Your task to perform on an android device: Open Chrome and go to settings Image 0: 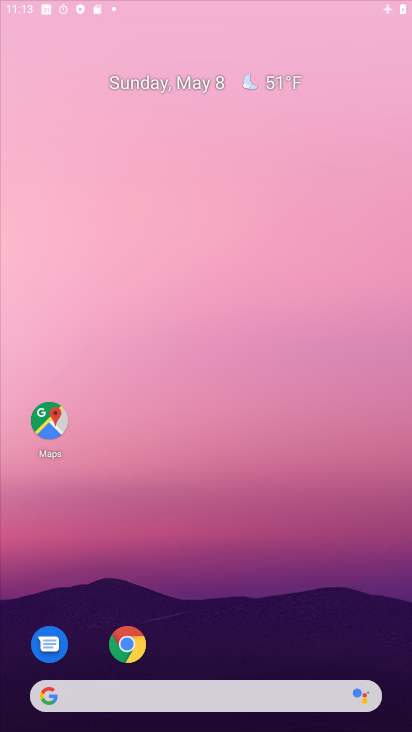
Step 0: click (215, 235)
Your task to perform on an android device: Open Chrome and go to settings Image 1: 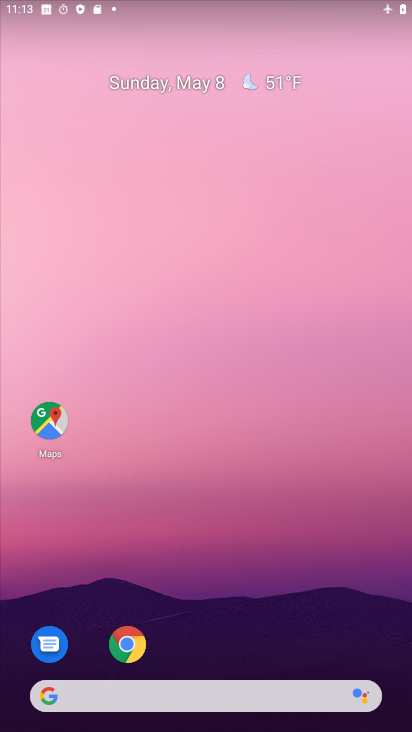
Step 1: drag from (174, 681) to (198, 219)
Your task to perform on an android device: Open Chrome and go to settings Image 2: 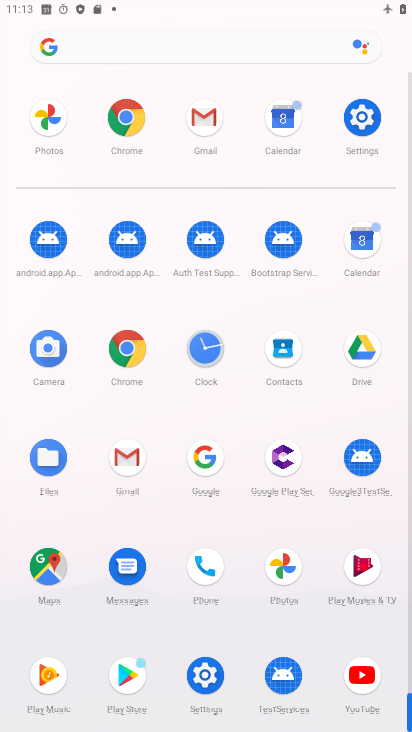
Step 2: click (361, 131)
Your task to perform on an android device: Open Chrome and go to settings Image 3: 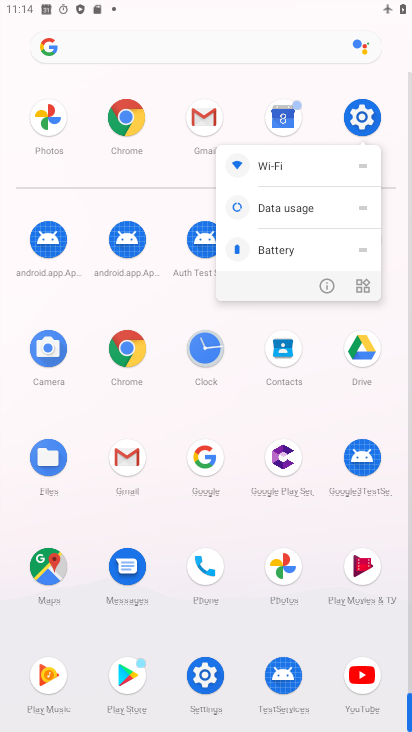
Step 3: click (325, 286)
Your task to perform on an android device: Open Chrome and go to settings Image 4: 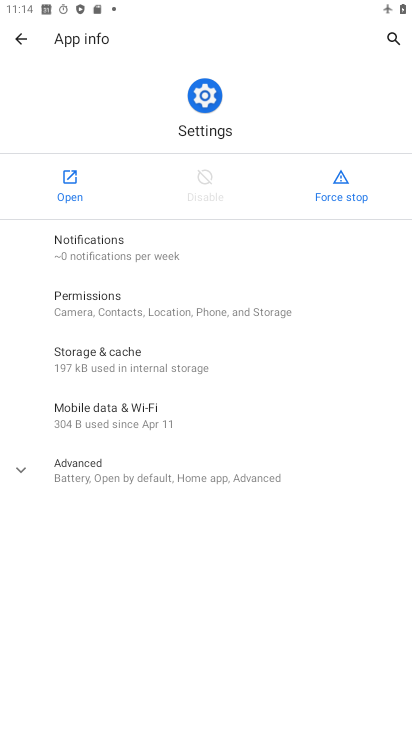
Step 4: press home button
Your task to perform on an android device: Open Chrome and go to settings Image 5: 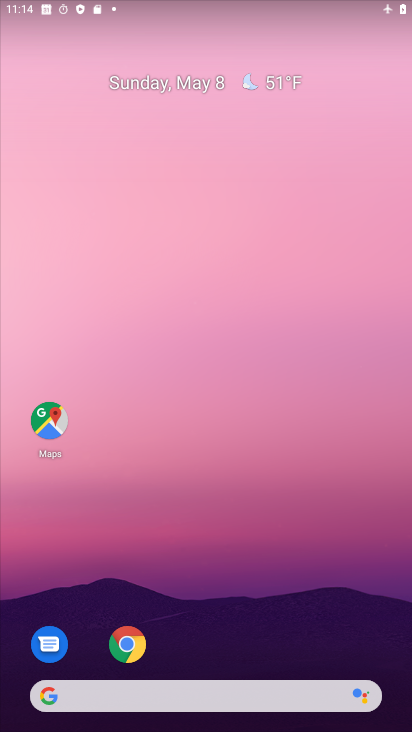
Step 5: click (137, 618)
Your task to perform on an android device: Open Chrome and go to settings Image 6: 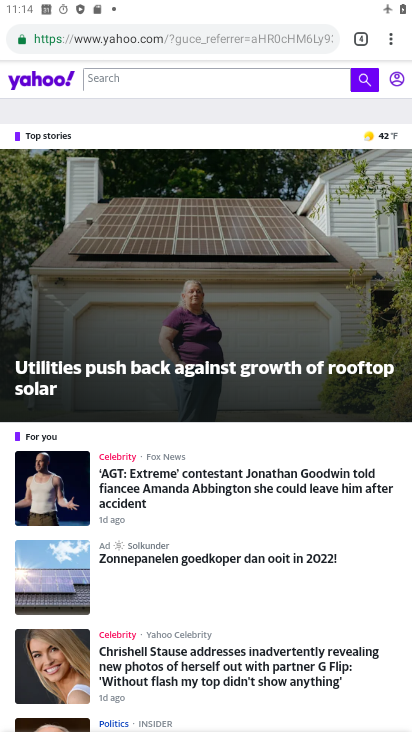
Step 6: task complete